Your task to perform on an android device: uninstall "Skype" Image 0: 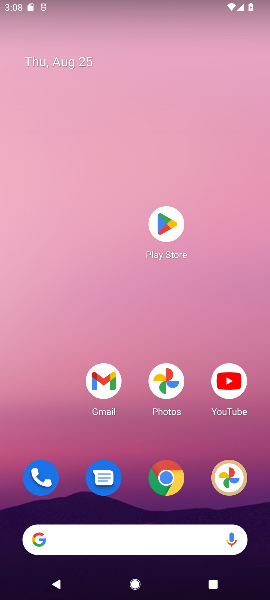
Step 0: click (166, 226)
Your task to perform on an android device: uninstall "Skype" Image 1: 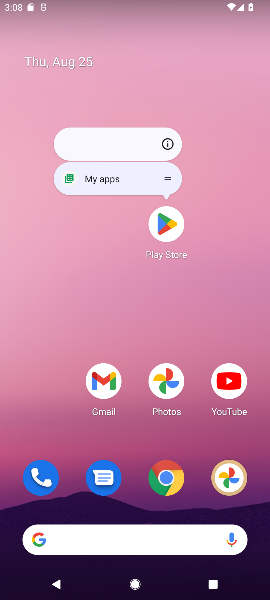
Step 1: click (166, 226)
Your task to perform on an android device: uninstall "Skype" Image 2: 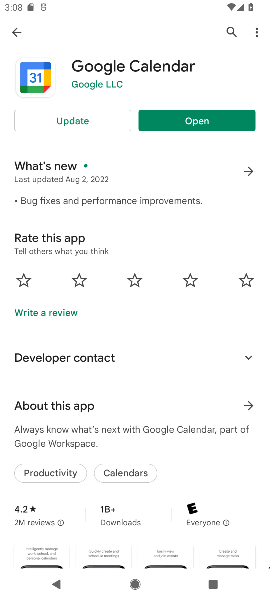
Step 2: click (231, 29)
Your task to perform on an android device: uninstall "Skype" Image 3: 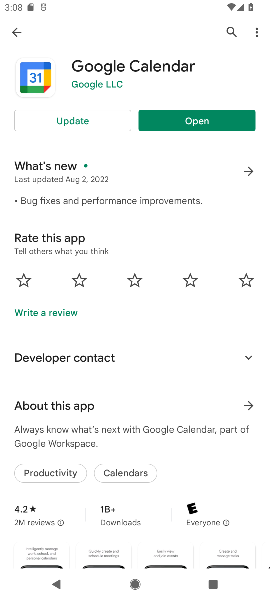
Step 3: click (227, 32)
Your task to perform on an android device: uninstall "Skype" Image 4: 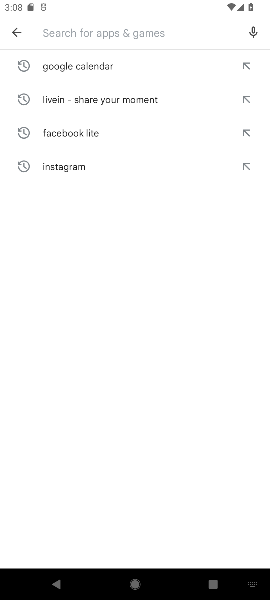
Step 4: type "Skype"
Your task to perform on an android device: uninstall "Skype" Image 5: 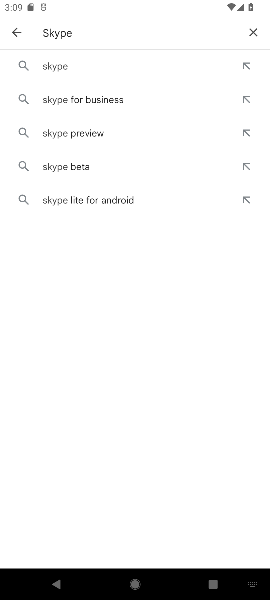
Step 5: click (58, 69)
Your task to perform on an android device: uninstall "Skype" Image 6: 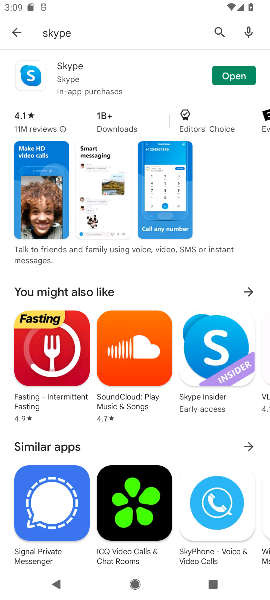
Step 6: click (71, 67)
Your task to perform on an android device: uninstall "Skype" Image 7: 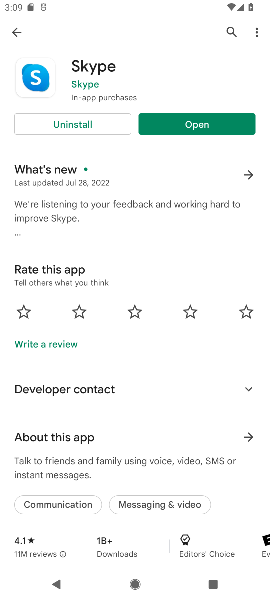
Step 7: click (74, 121)
Your task to perform on an android device: uninstall "Skype" Image 8: 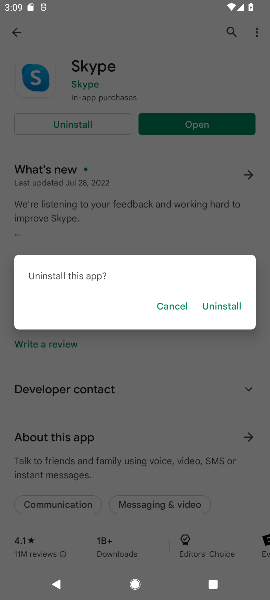
Step 8: click (217, 308)
Your task to perform on an android device: uninstall "Skype" Image 9: 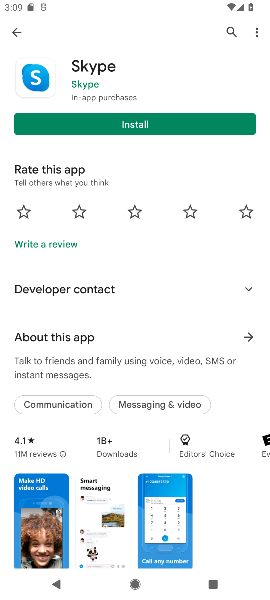
Step 9: task complete